Your task to perform on an android device: Go to display settings Image 0: 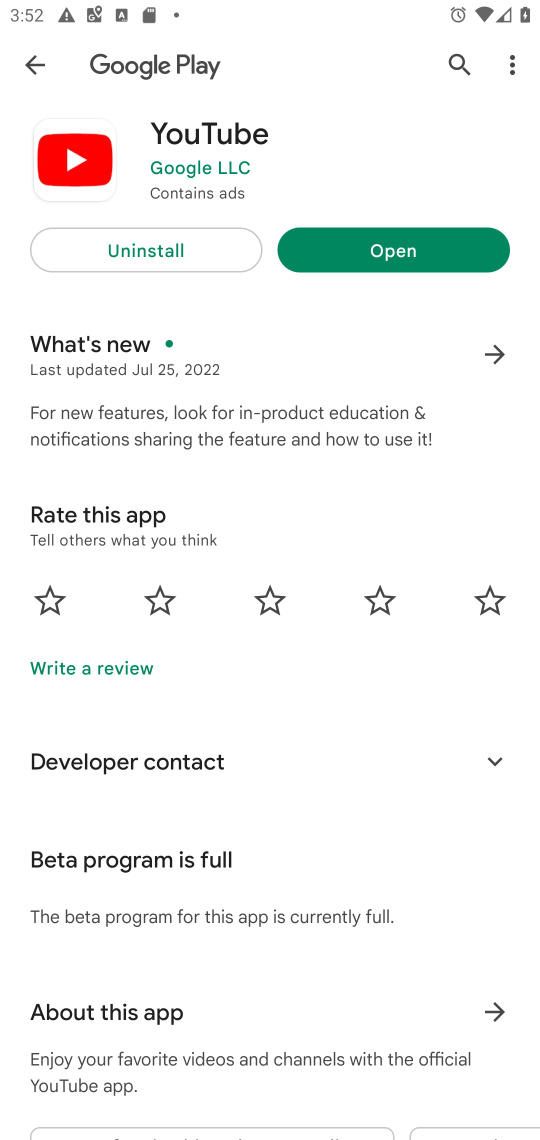
Step 0: press home button
Your task to perform on an android device: Go to display settings Image 1: 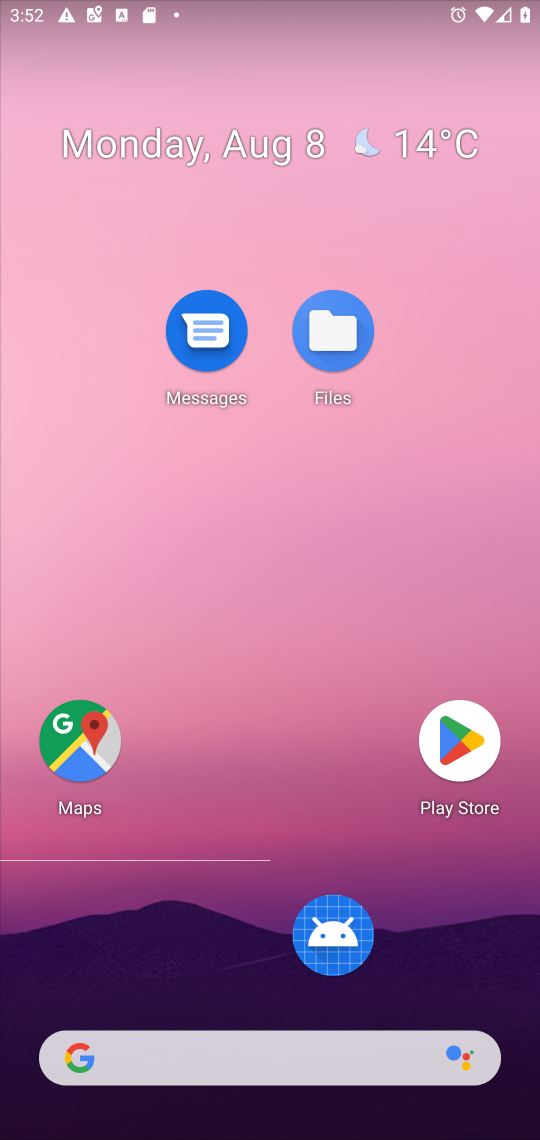
Step 1: drag from (292, 1066) to (310, 43)
Your task to perform on an android device: Go to display settings Image 2: 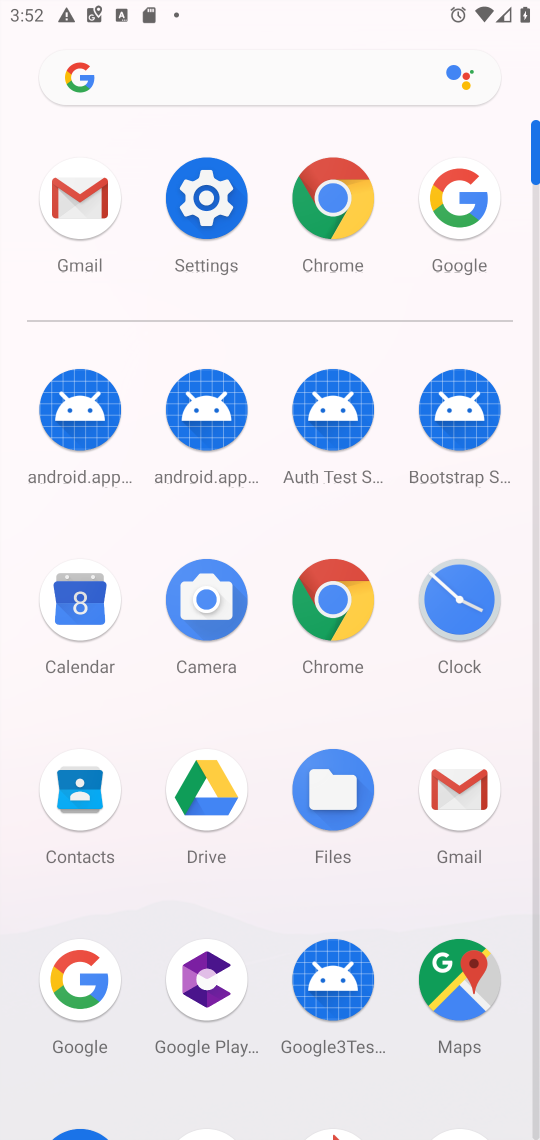
Step 2: click (197, 178)
Your task to perform on an android device: Go to display settings Image 3: 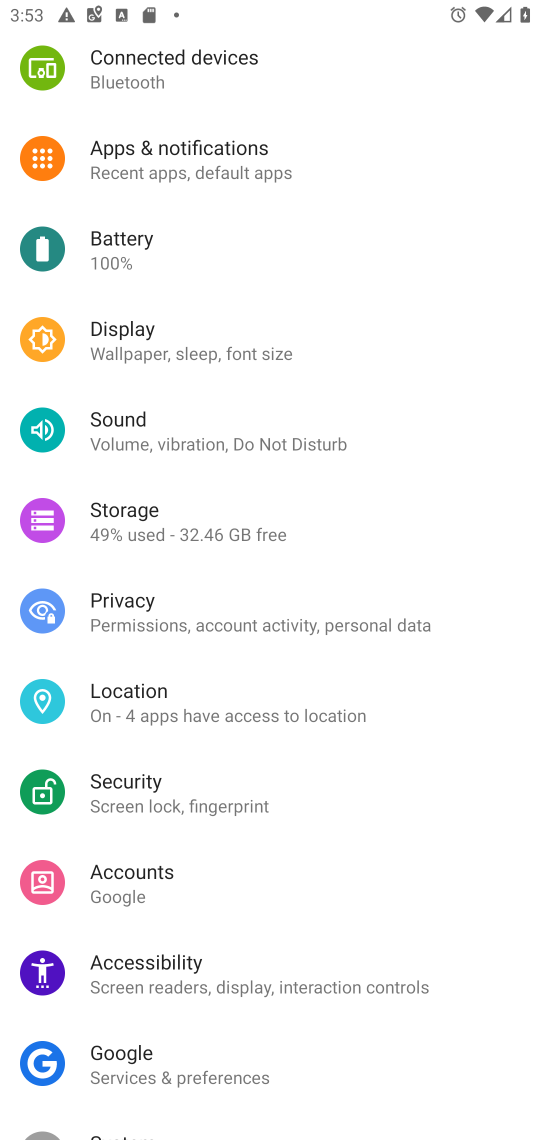
Step 3: click (156, 343)
Your task to perform on an android device: Go to display settings Image 4: 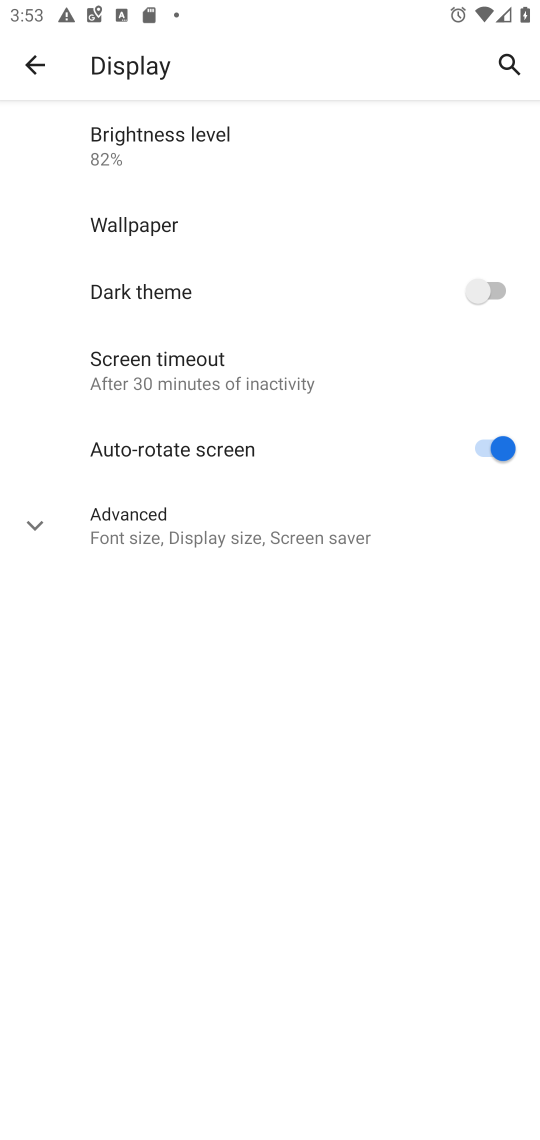
Step 4: task complete